Your task to perform on an android device: Open the Play Movies app and select the watchlist tab. Image 0: 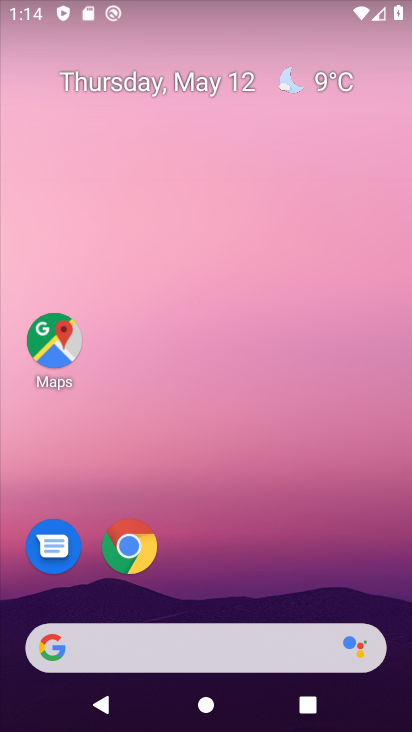
Step 0: drag from (168, 682) to (324, 291)
Your task to perform on an android device: Open the Play Movies app and select the watchlist tab. Image 1: 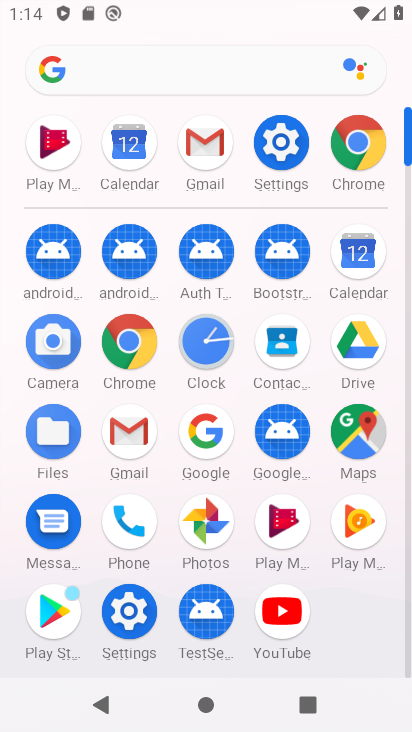
Step 1: click (267, 516)
Your task to perform on an android device: Open the Play Movies app and select the watchlist tab. Image 2: 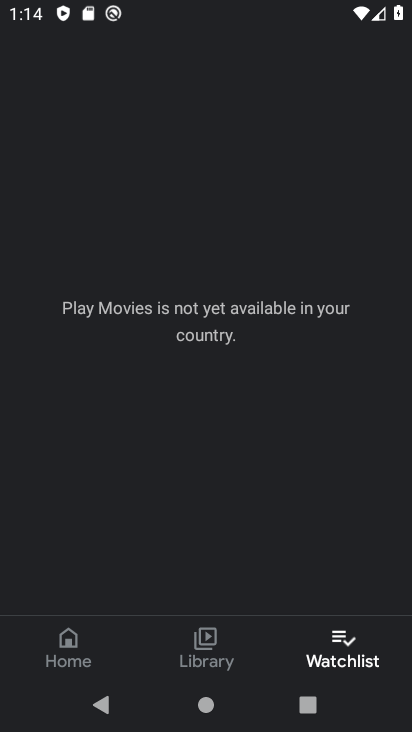
Step 2: click (339, 657)
Your task to perform on an android device: Open the Play Movies app and select the watchlist tab. Image 3: 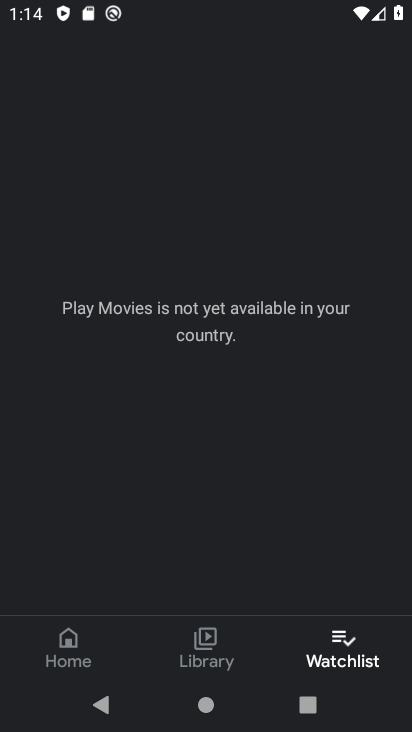
Step 3: task complete